Your task to perform on an android device: toggle notification dots Image 0: 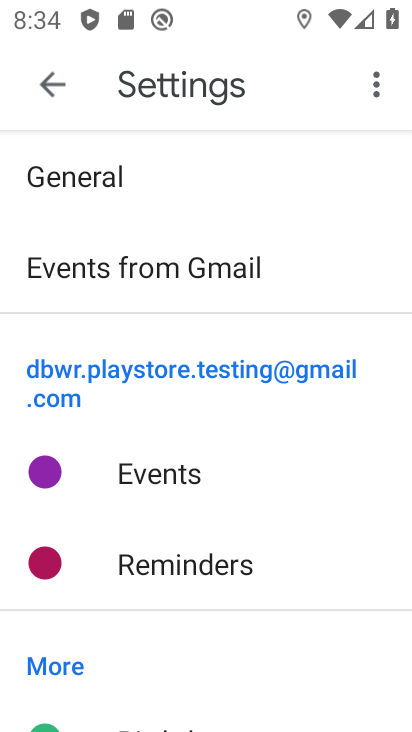
Step 0: press home button
Your task to perform on an android device: toggle notification dots Image 1: 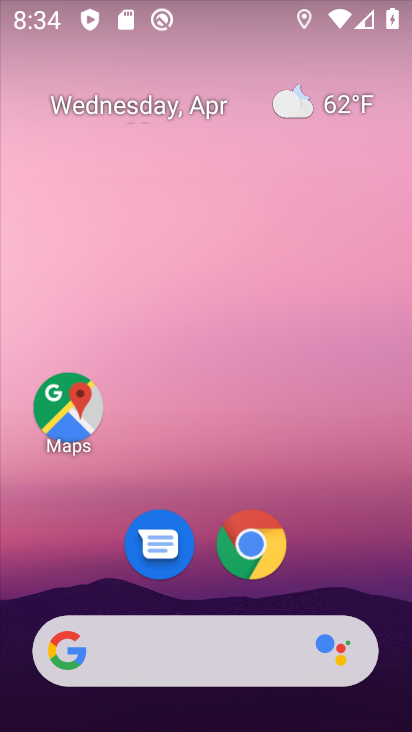
Step 1: drag from (318, 554) to (184, 111)
Your task to perform on an android device: toggle notification dots Image 2: 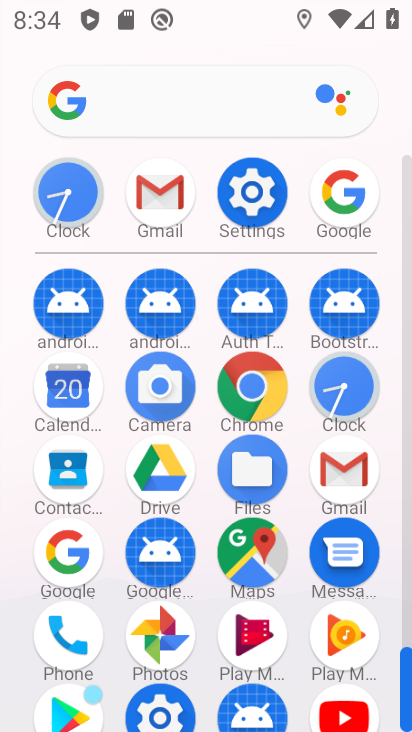
Step 2: click (244, 198)
Your task to perform on an android device: toggle notification dots Image 3: 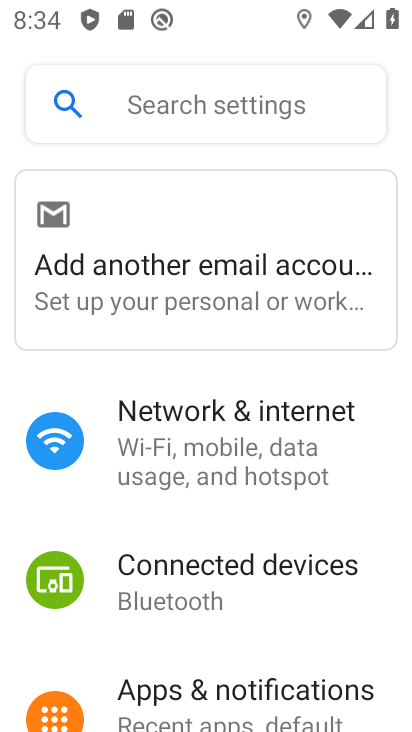
Step 3: click (205, 688)
Your task to perform on an android device: toggle notification dots Image 4: 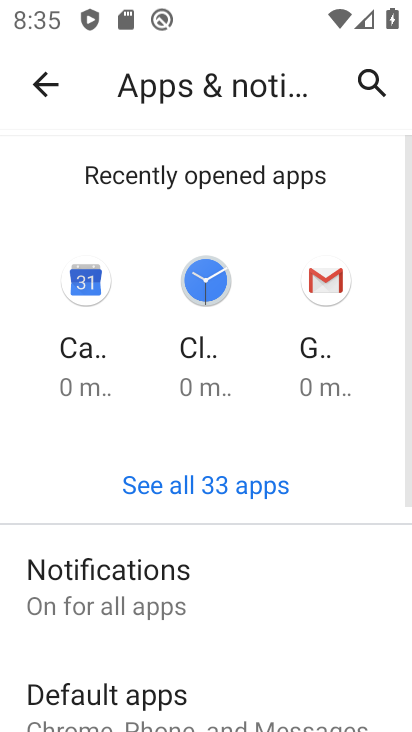
Step 4: click (147, 599)
Your task to perform on an android device: toggle notification dots Image 5: 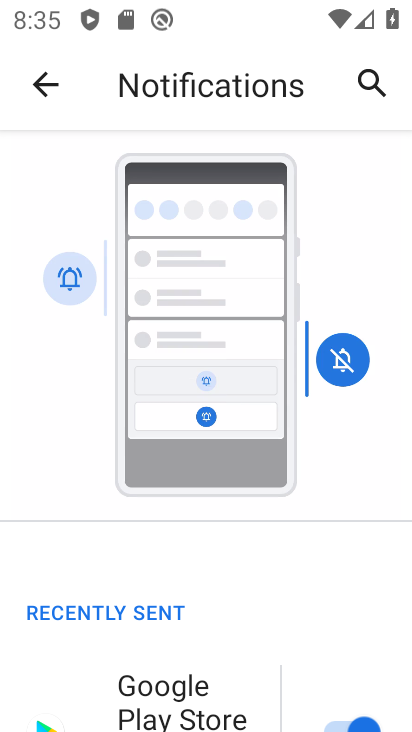
Step 5: drag from (190, 692) to (187, 227)
Your task to perform on an android device: toggle notification dots Image 6: 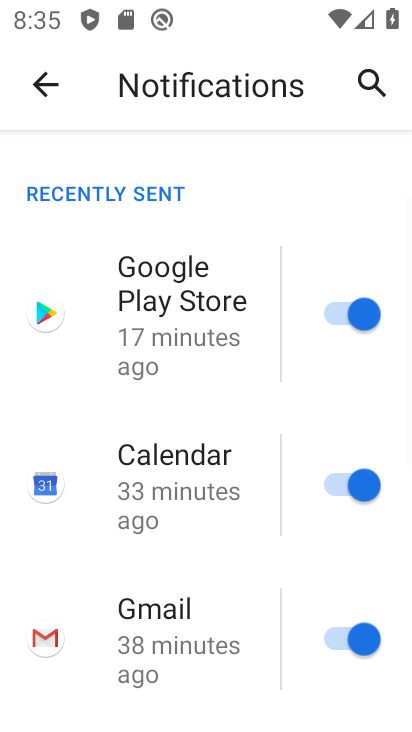
Step 6: drag from (166, 646) to (160, 277)
Your task to perform on an android device: toggle notification dots Image 7: 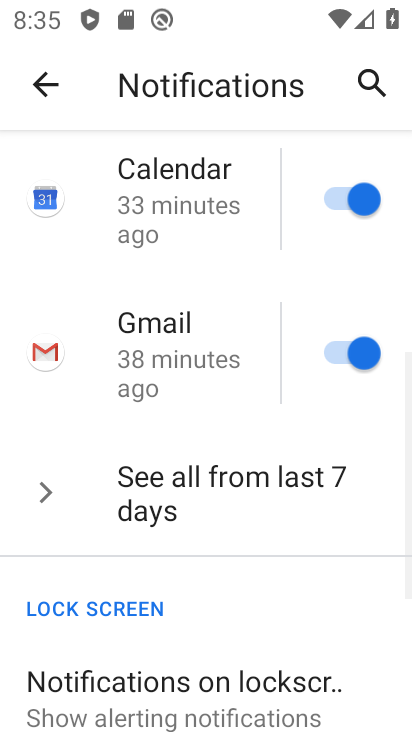
Step 7: drag from (177, 645) to (107, 113)
Your task to perform on an android device: toggle notification dots Image 8: 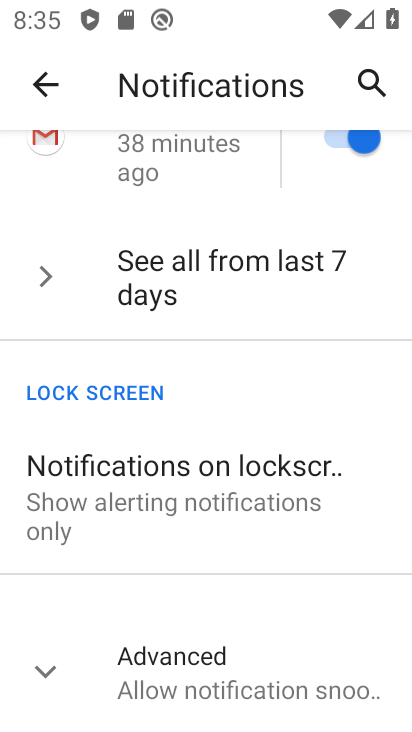
Step 8: click (196, 680)
Your task to perform on an android device: toggle notification dots Image 9: 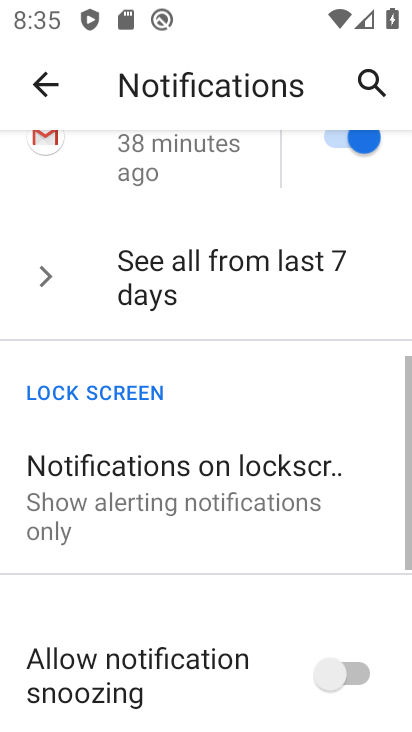
Step 9: drag from (203, 612) to (195, 268)
Your task to perform on an android device: toggle notification dots Image 10: 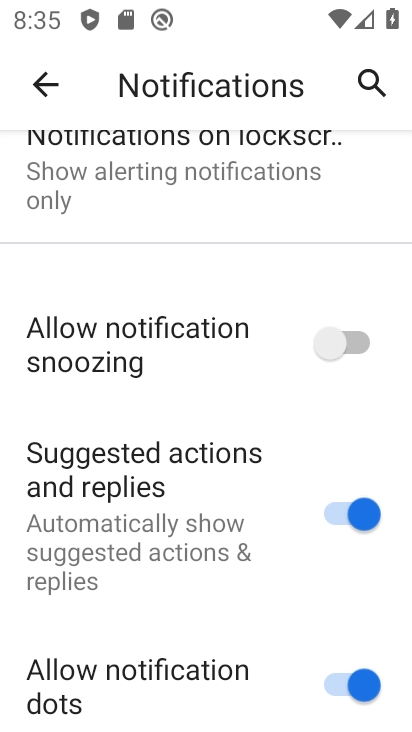
Step 10: drag from (188, 653) to (189, 340)
Your task to perform on an android device: toggle notification dots Image 11: 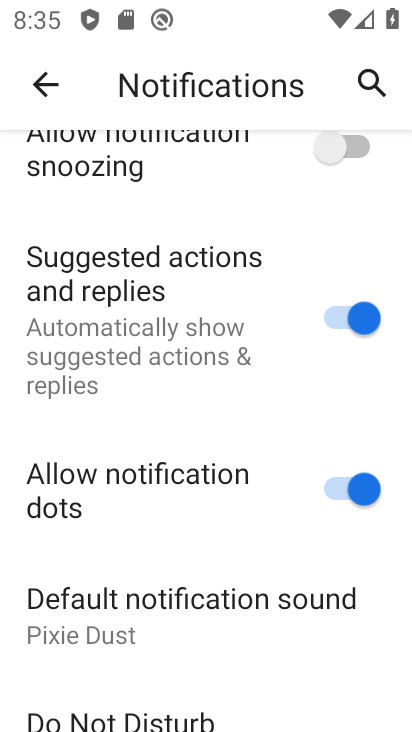
Step 11: click (362, 479)
Your task to perform on an android device: toggle notification dots Image 12: 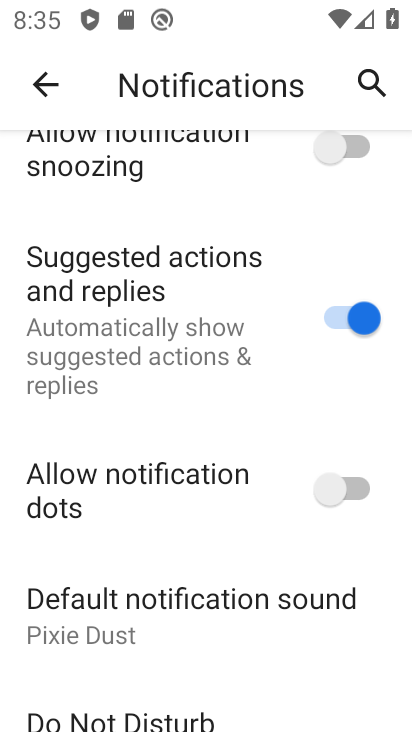
Step 12: task complete